Your task to perform on an android device: turn on data saver in the chrome app Image 0: 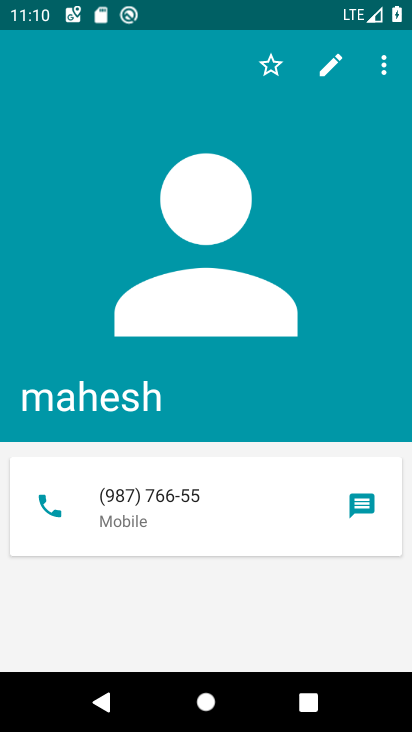
Step 0: press home button
Your task to perform on an android device: turn on data saver in the chrome app Image 1: 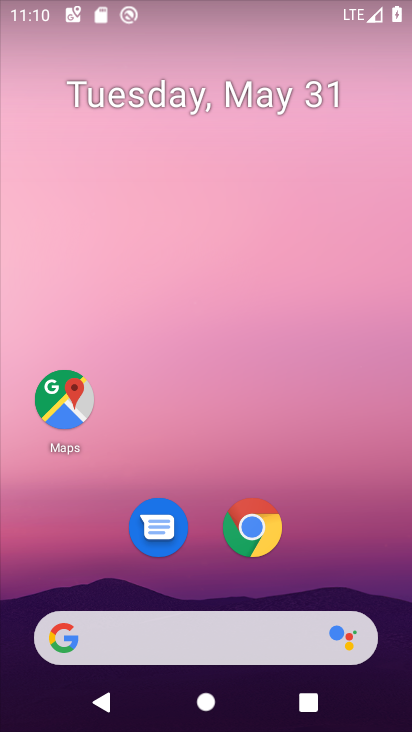
Step 1: click (253, 532)
Your task to perform on an android device: turn on data saver in the chrome app Image 2: 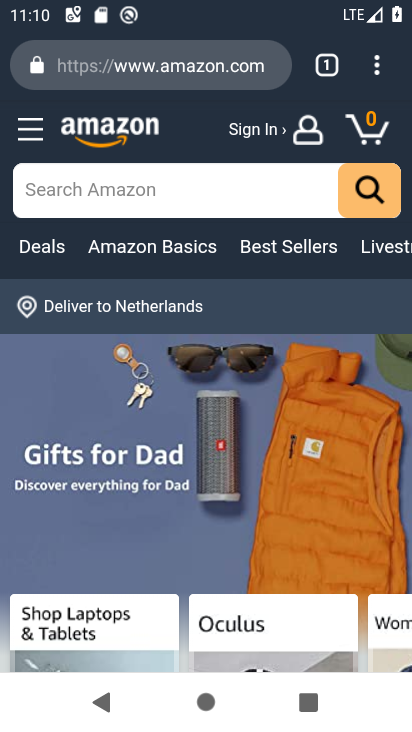
Step 2: click (378, 66)
Your task to perform on an android device: turn on data saver in the chrome app Image 3: 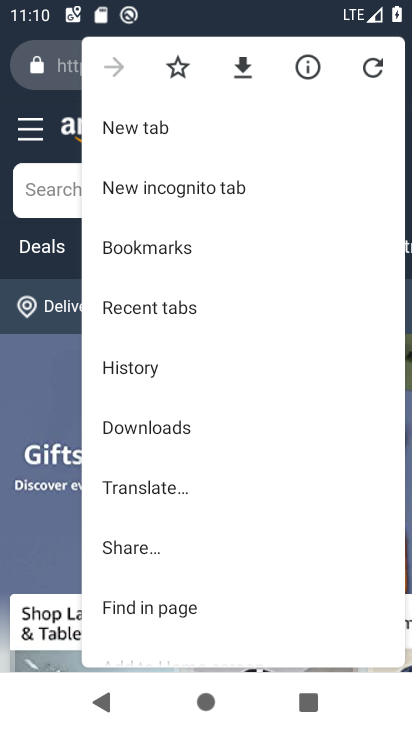
Step 3: drag from (229, 575) to (249, 295)
Your task to perform on an android device: turn on data saver in the chrome app Image 4: 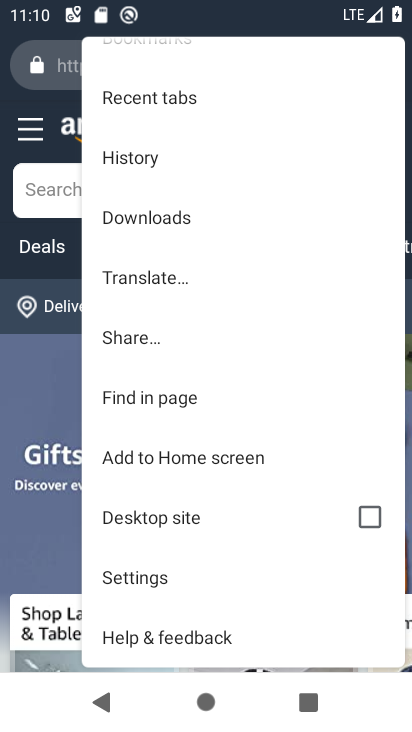
Step 4: click (130, 575)
Your task to perform on an android device: turn on data saver in the chrome app Image 5: 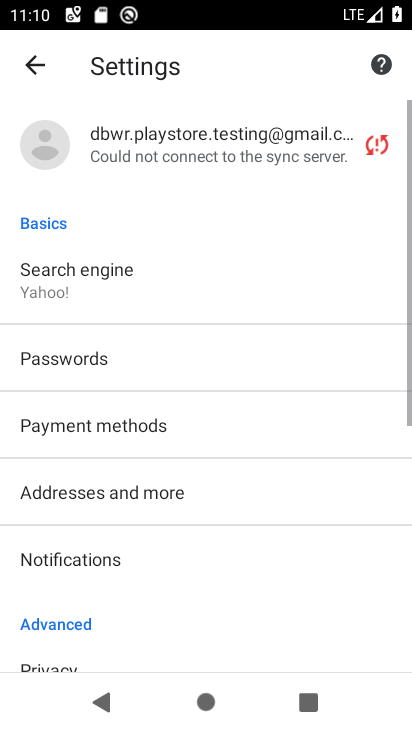
Step 5: drag from (161, 586) to (181, 261)
Your task to perform on an android device: turn on data saver in the chrome app Image 6: 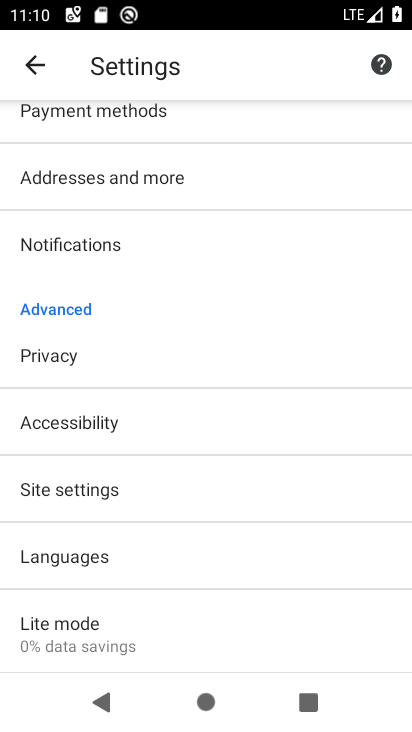
Step 6: click (98, 632)
Your task to perform on an android device: turn on data saver in the chrome app Image 7: 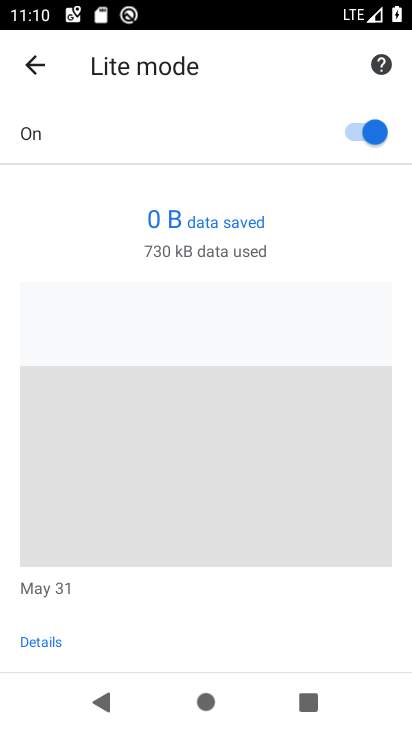
Step 7: task complete